Your task to perform on an android device: Search for Italian restaurants on Maps Image 0: 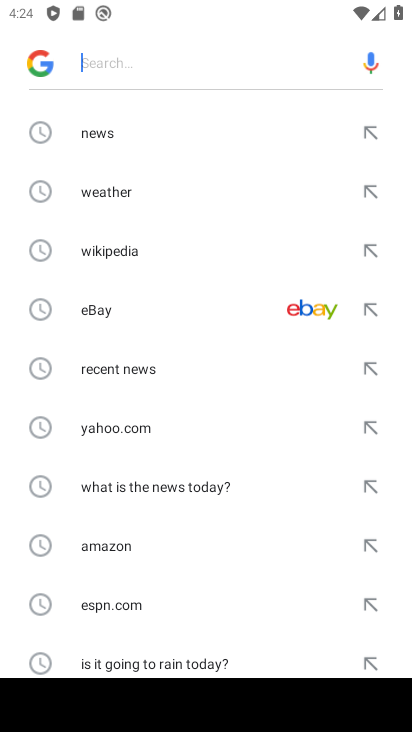
Step 0: press home button
Your task to perform on an android device: Search for Italian restaurants on Maps Image 1: 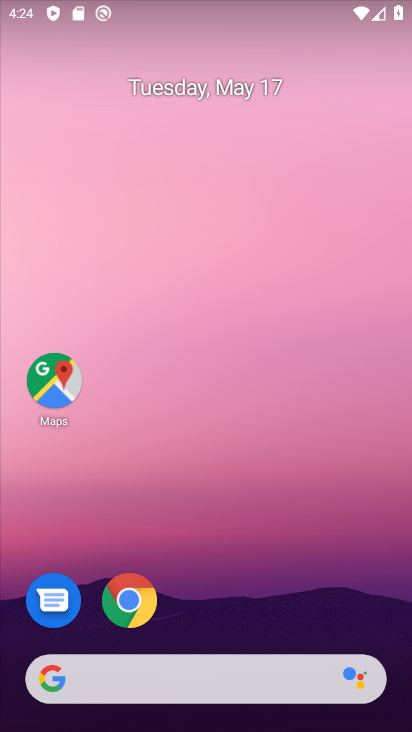
Step 1: click (66, 381)
Your task to perform on an android device: Search for Italian restaurants on Maps Image 2: 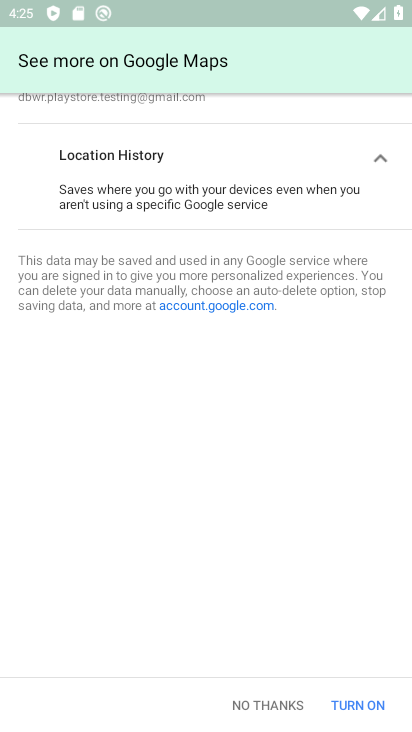
Step 2: click (142, 60)
Your task to perform on an android device: Search for Italian restaurants on Maps Image 3: 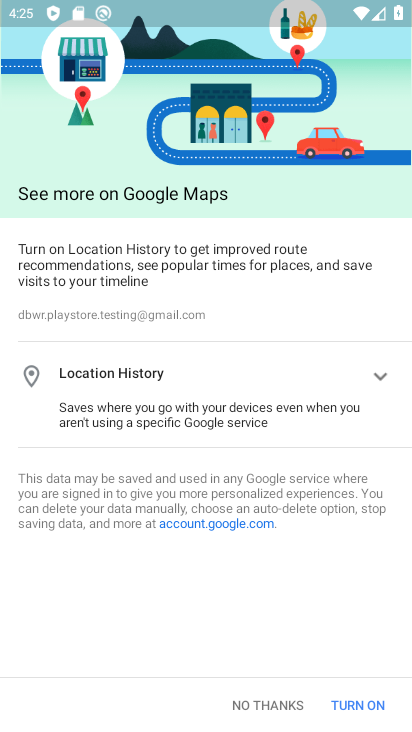
Step 3: click (238, 706)
Your task to perform on an android device: Search for Italian restaurants on Maps Image 4: 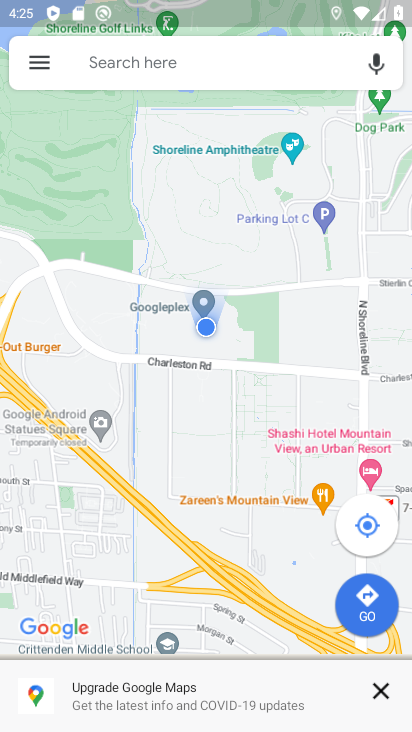
Step 4: click (149, 53)
Your task to perform on an android device: Search for Italian restaurants on Maps Image 5: 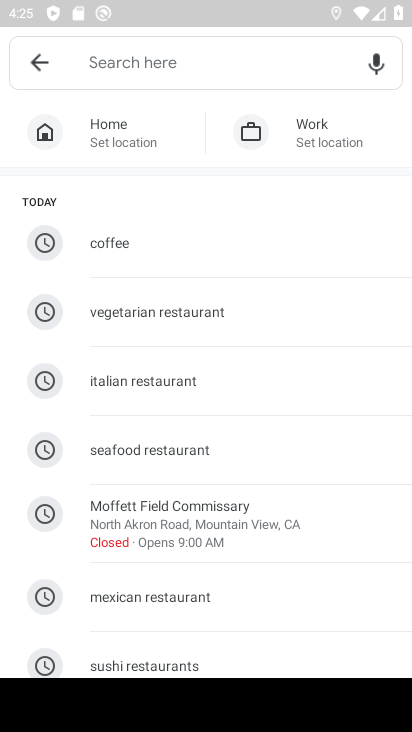
Step 5: type "italian restaurants"
Your task to perform on an android device: Search for Italian restaurants on Maps Image 6: 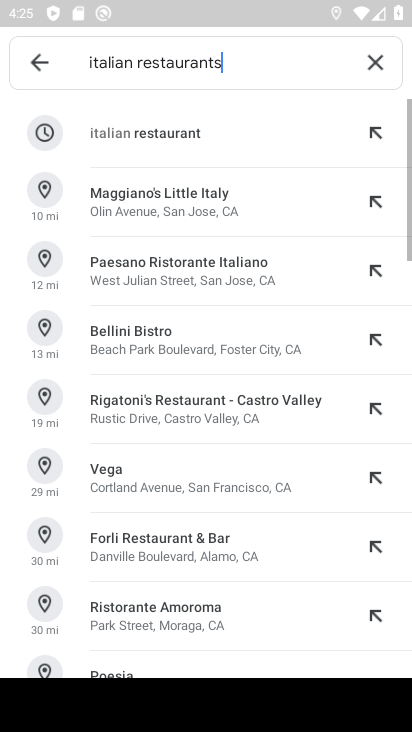
Step 6: click (141, 135)
Your task to perform on an android device: Search for Italian restaurants on Maps Image 7: 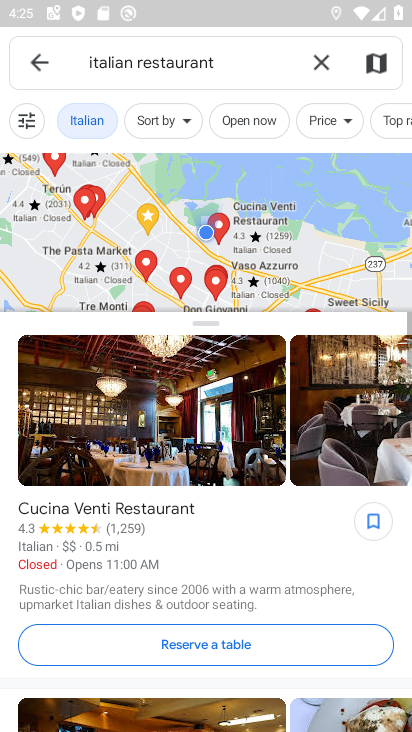
Step 7: task complete